Your task to perform on an android device: Open settings on Google Maps Image 0: 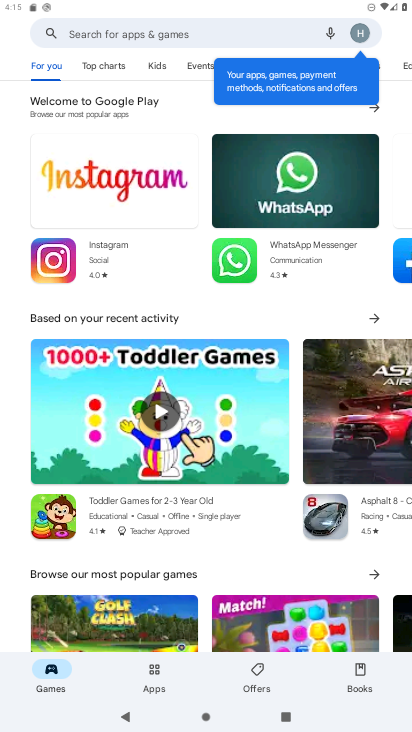
Step 0: press home button
Your task to perform on an android device: Open settings on Google Maps Image 1: 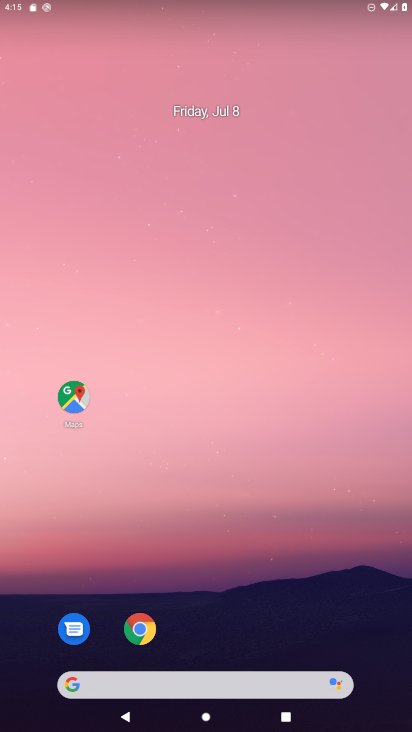
Step 1: click (83, 403)
Your task to perform on an android device: Open settings on Google Maps Image 2: 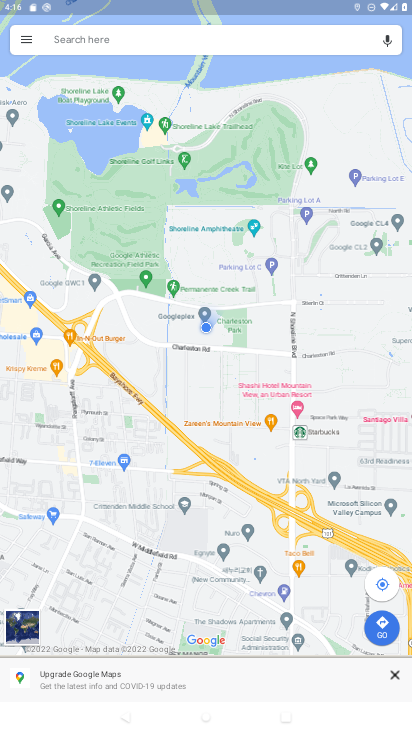
Step 2: click (83, 403)
Your task to perform on an android device: Open settings on Google Maps Image 3: 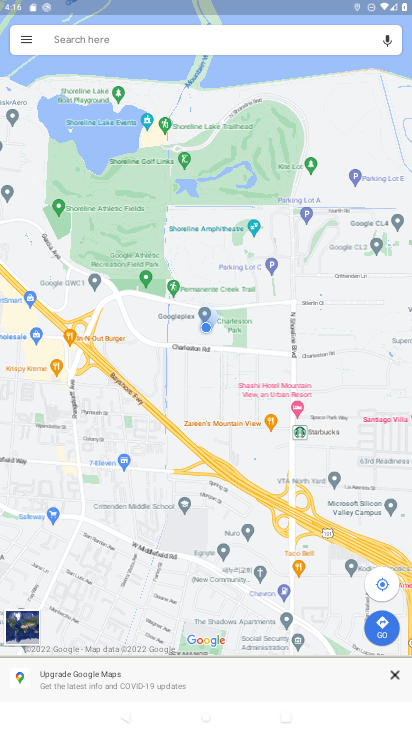
Step 3: click (20, 48)
Your task to perform on an android device: Open settings on Google Maps Image 4: 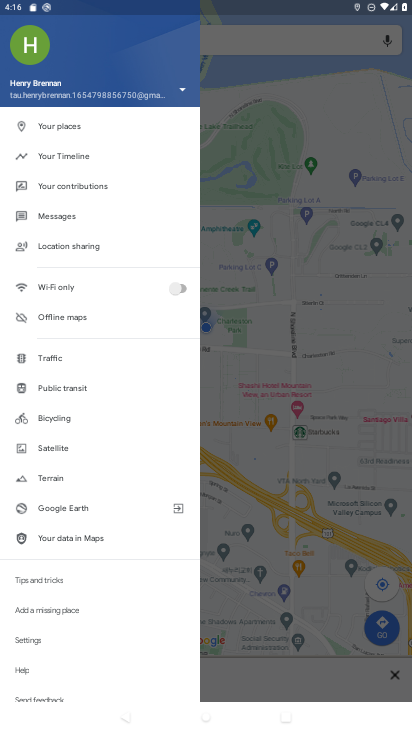
Step 4: click (49, 646)
Your task to perform on an android device: Open settings on Google Maps Image 5: 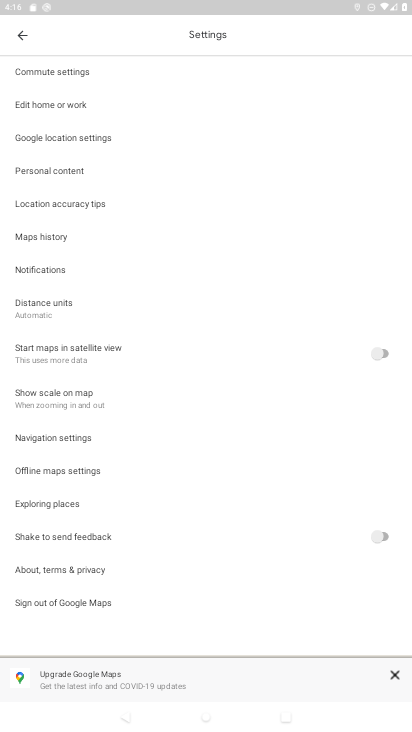
Step 5: task complete